Your task to perform on an android device: Search for vegetarian restaurants on Maps Image 0: 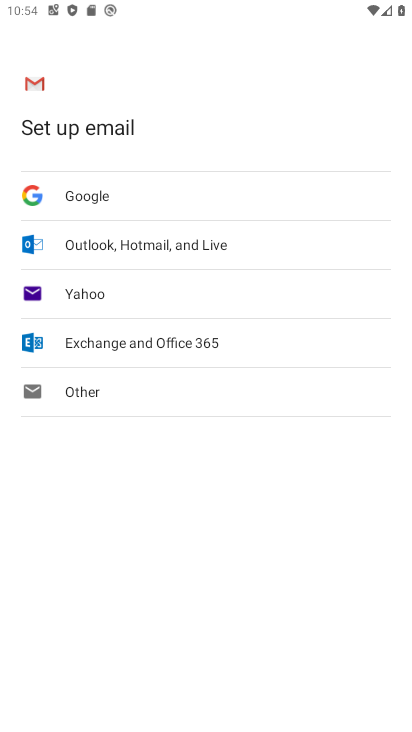
Step 0: press home button
Your task to perform on an android device: Search for vegetarian restaurants on Maps Image 1: 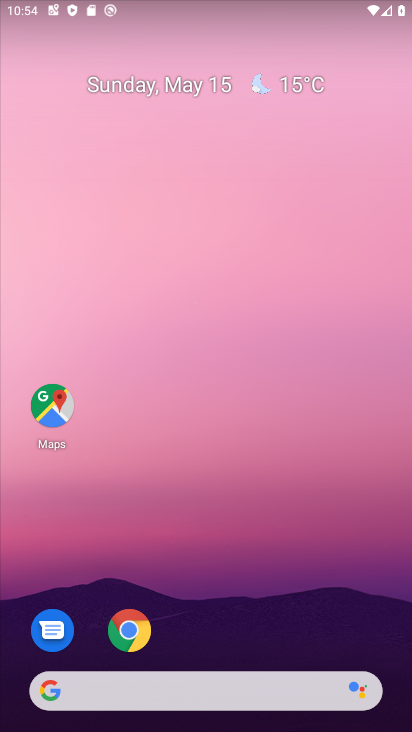
Step 1: drag from (222, 728) to (197, 98)
Your task to perform on an android device: Search for vegetarian restaurants on Maps Image 2: 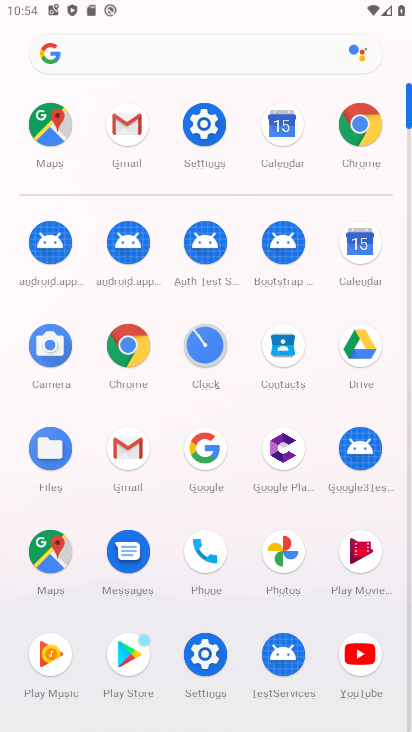
Step 2: click (51, 549)
Your task to perform on an android device: Search for vegetarian restaurants on Maps Image 3: 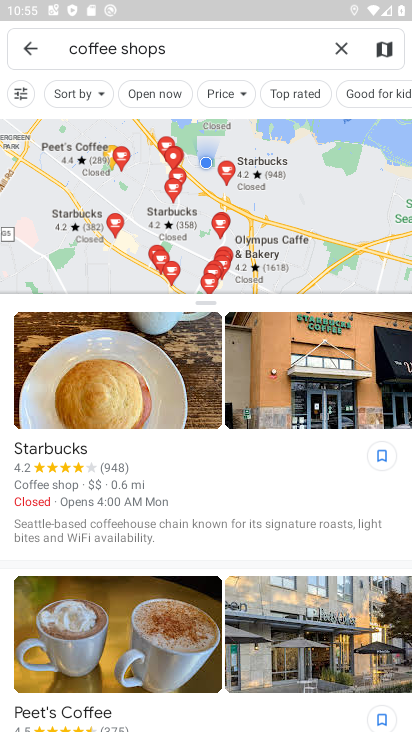
Step 3: click (336, 49)
Your task to perform on an android device: Search for vegetarian restaurants on Maps Image 4: 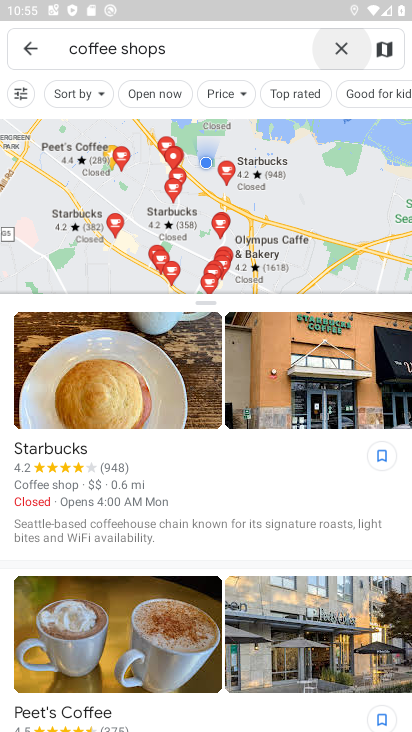
Step 4: click (184, 44)
Your task to perform on an android device: Search for vegetarian restaurants on Maps Image 5: 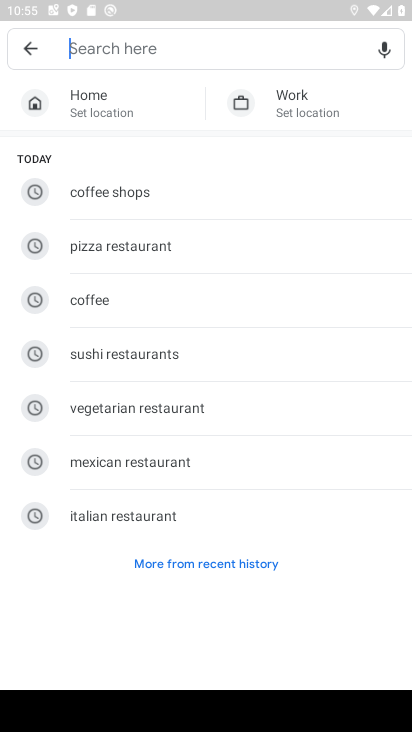
Step 5: click (153, 50)
Your task to perform on an android device: Search for vegetarian restaurants on Maps Image 6: 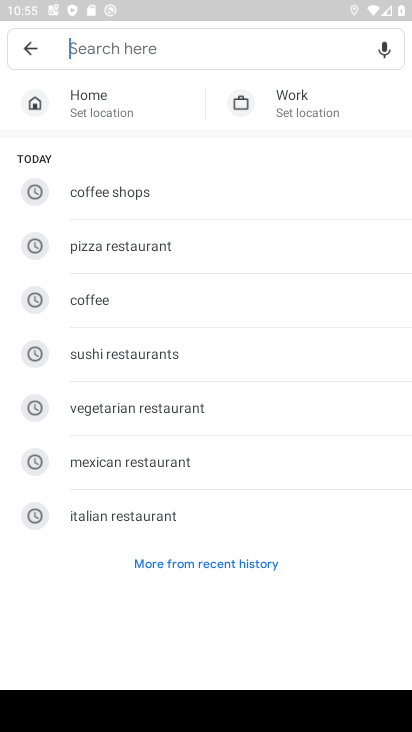
Step 6: type "vegetarian restaurants"
Your task to perform on an android device: Search for vegetarian restaurants on Maps Image 7: 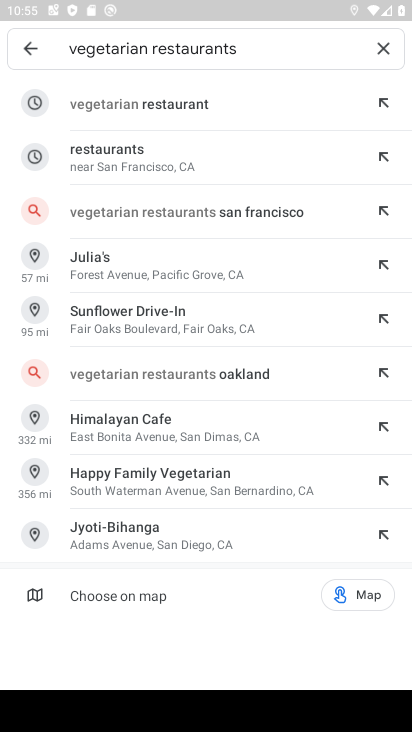
Step 7: click (82, 99)
Your task to perform on an android device: Search for vegetarian restaurants on Maps Image 8: 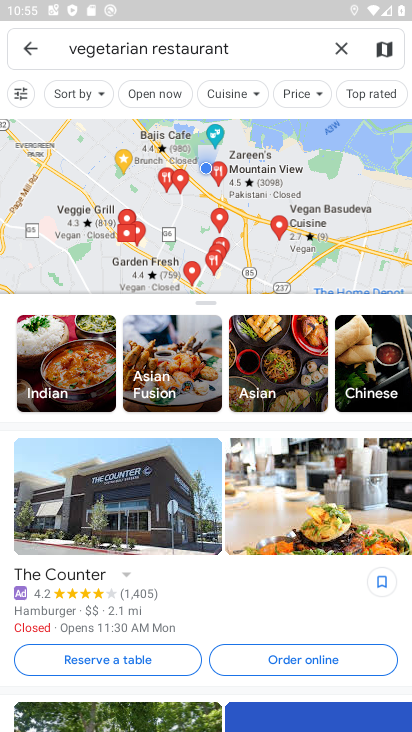
Step 8: task complete